Your task to perform on an android device: Go to Google maps Image 0: 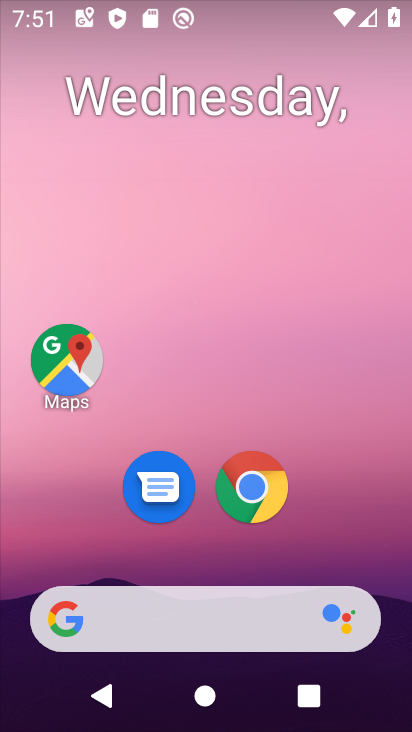
Step 0: drag from (362, 551) to (351, 195)
Your task to perform on an android device: Go to Google maps Image 1: 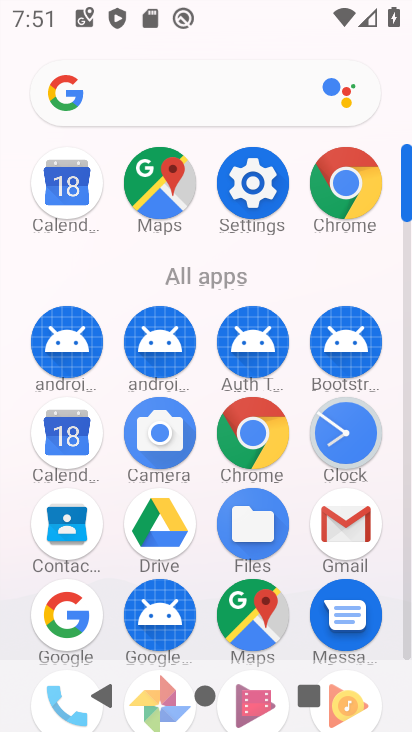
Step 1: click (255, 609)
Your task to perform on an android device: Go to Google maps Image 2: 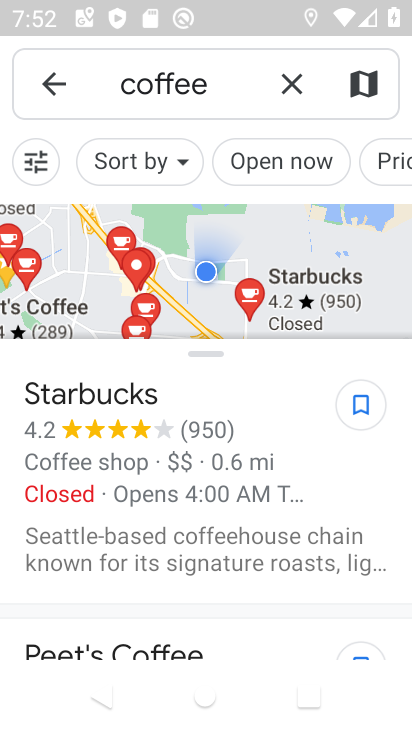
Step 2: task complete